Your task to perform on an android device: turn notification dots on Image 0: 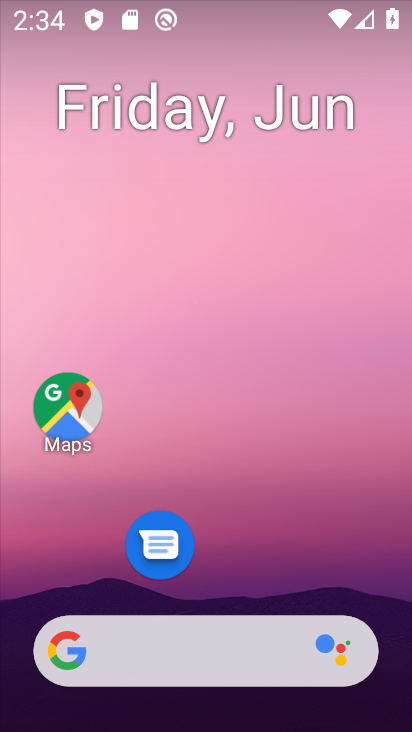
Step 0: drag from (224, 593) to (326, 1)
Your task to perform on an android device: turn notification dots on Image 1: 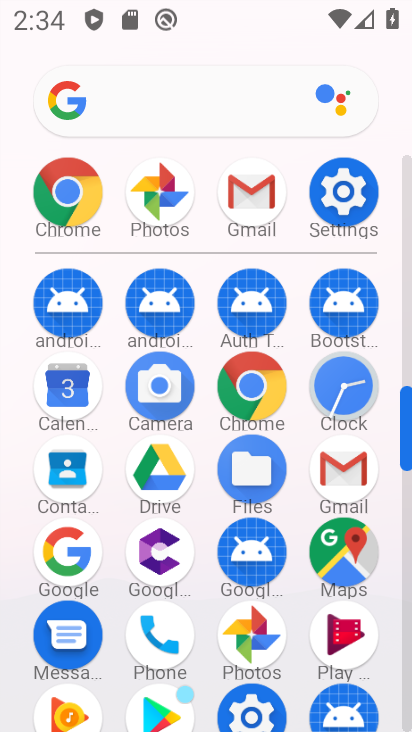
Step 1: click (351, 212)
Your task to perform on an android device: turn notification dots on Image 2: 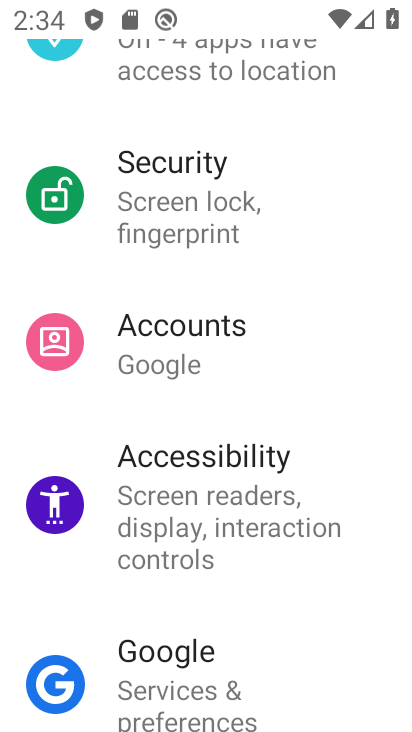
Step 2: drag from (232, 207) to (199, 394)
Your task to perform on an android device: turn notification dots on Image 3: 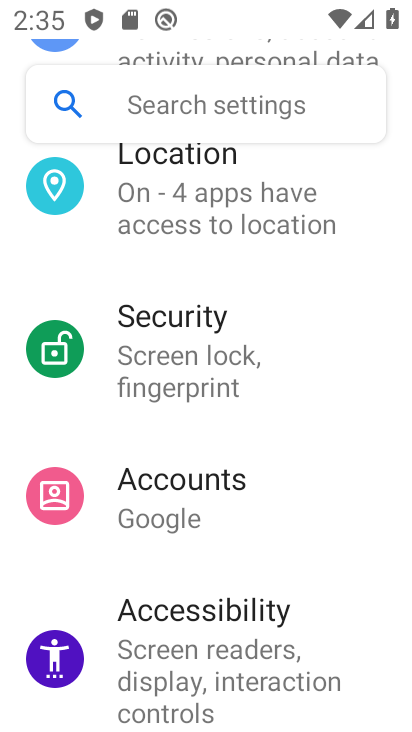
Step 3: drag from (220, 194) to (217, 430)
Your task to perform on an android device: turn notification dots on Image 4: 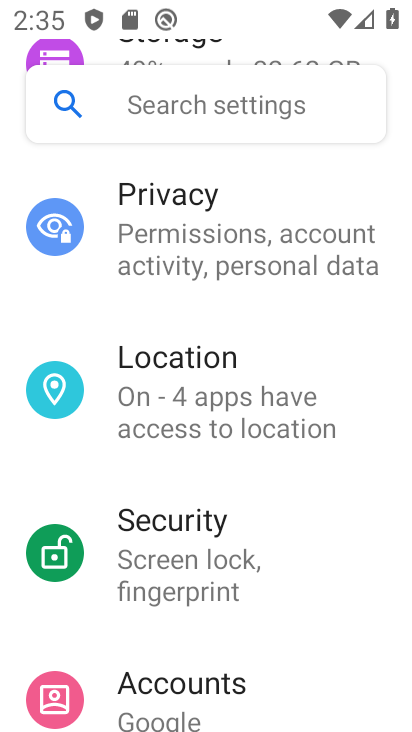
Step 4: drag from (225, 202) to (185, 723)
Your task to perform on an android device: turn notification dots on Image 5: 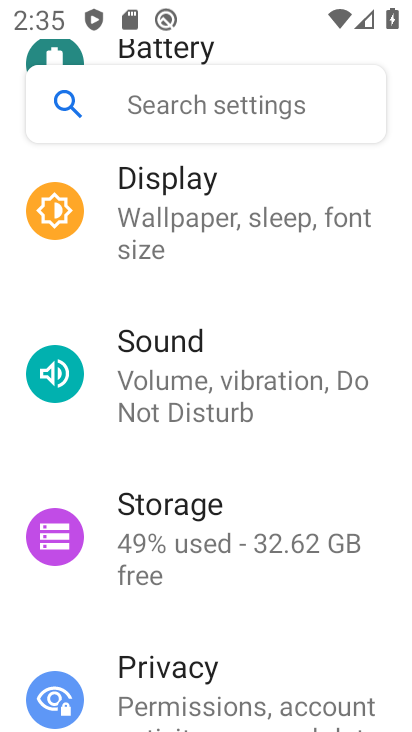
Step 5: drag from (220, 196) to (232, 725)
Your task to perform on an android device: turn notification dots on Image 6: 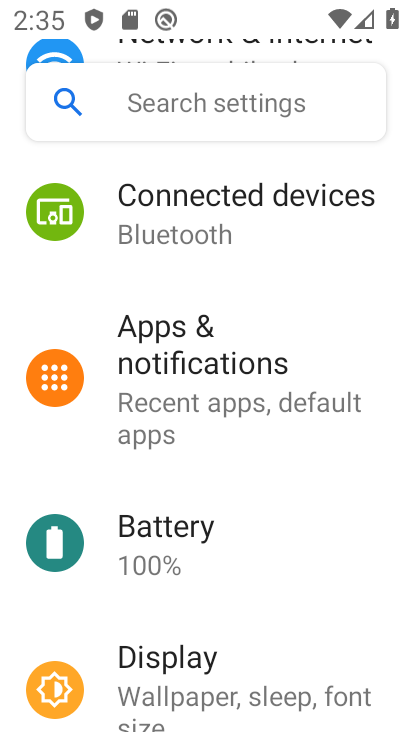
Step 6: click (246, 367)
Your task to perform on an android device: turn notification dots on Image 7: 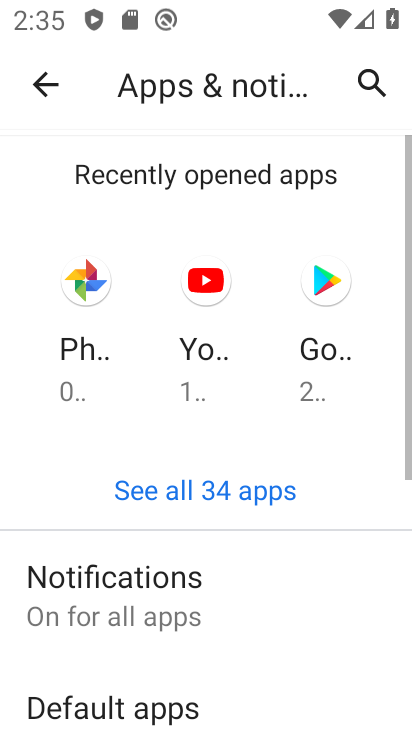
Step 7: drag from (213, 617) to (249, 360)
Your task to perform on an android device: turn notification dots on Image 8: 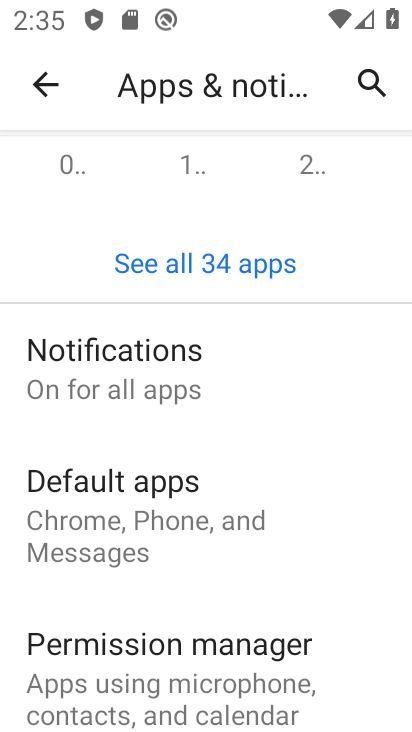
Step 8: click (170, 374)
Your task to perform on an android device: turn notification dots on Image 9: 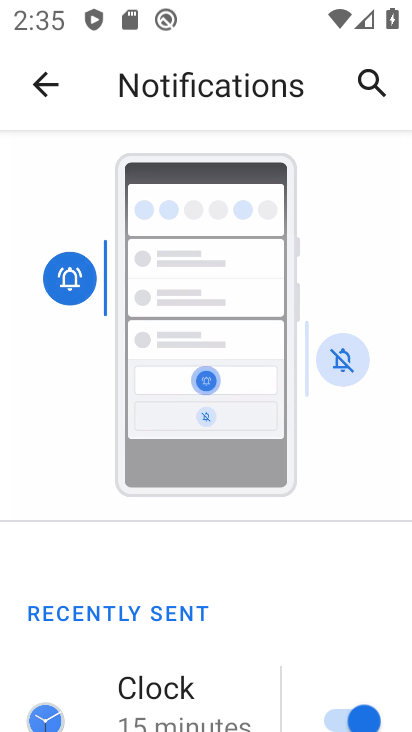
Step 9: drag from (169, 602) to (213, 39)
Your task to perform on an android device: turn notification dots on Image 10: 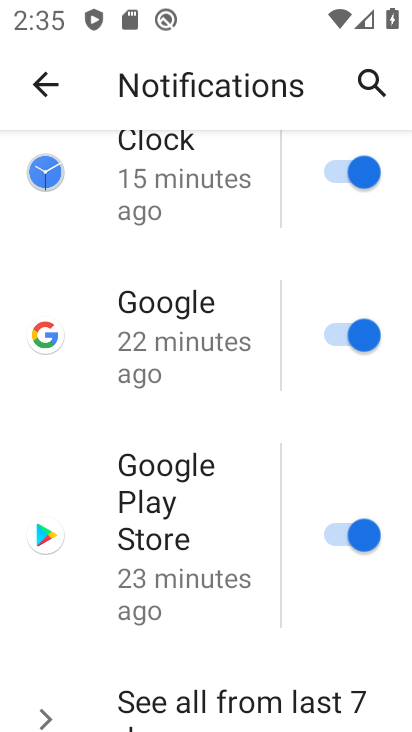
Step 10: drag from (95, 616) to (234, 42)
Your task to perform on an android device: turn notification dots on Image 11: 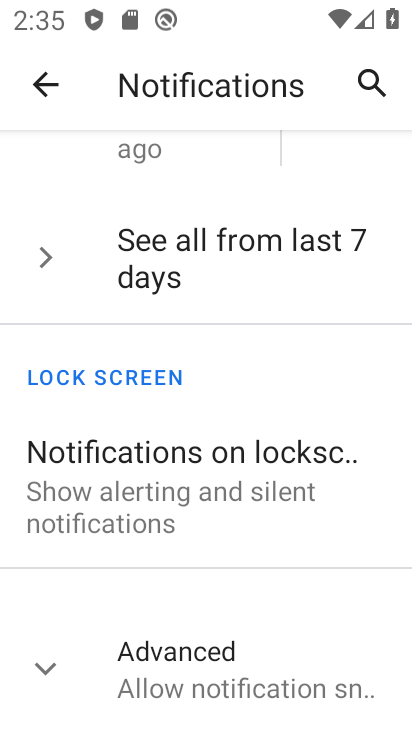
Step 11: drag from (188, 693) to (318, 6)
Your task to perform on an android device: turn notification dots on Image 12: 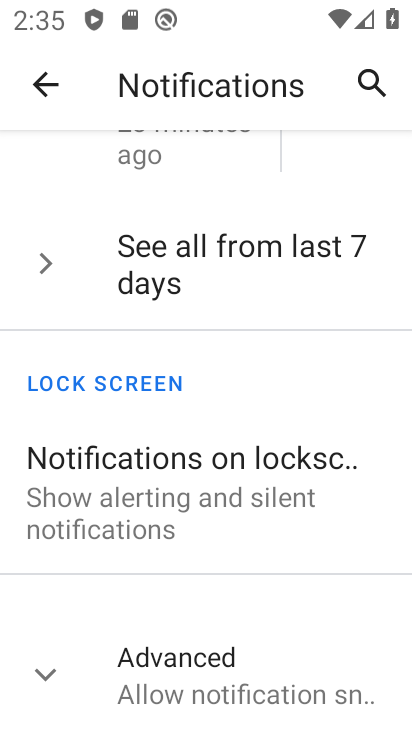
Step 12: click (166, 667)
Your task to perform on an android device: turn notification dots on Image 13: 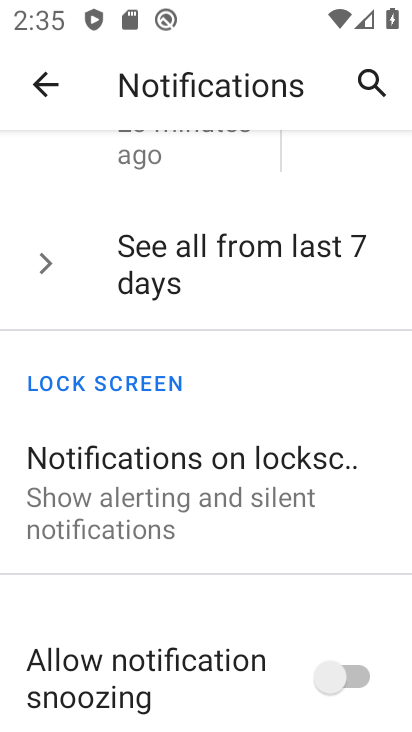
Step 13: task complete